Your task to perform on an android device: remove spam from my inbox in the gmail app Image 0: 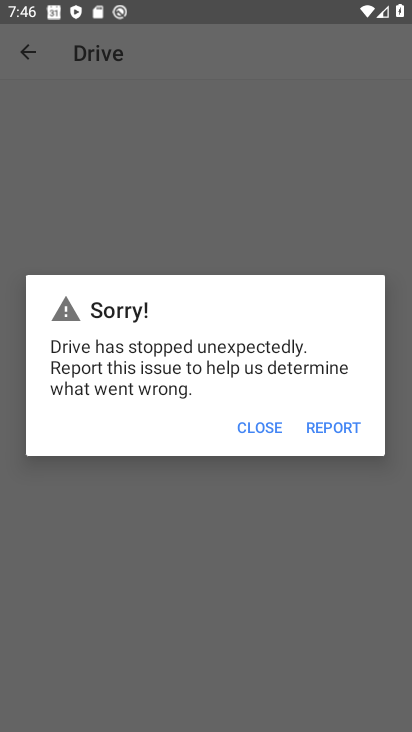
Step 0: press home button
Your task to perform on an android device: remove spam from my inbox in the gmail app Image 1: 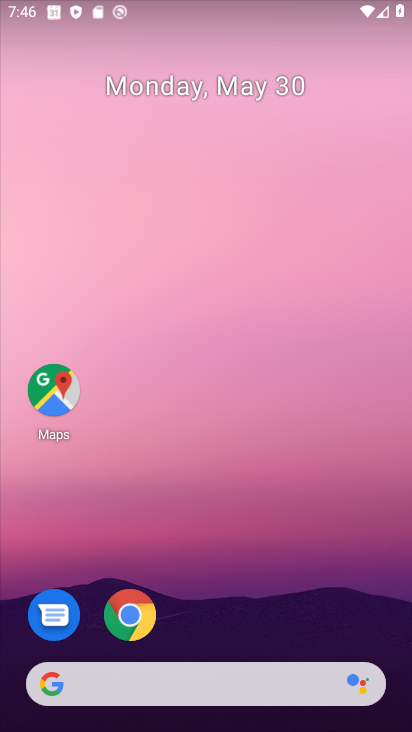
Step 1: drag from (135, 725) to (190, 71)
Your task to perform on an android device: remove spam from my inbox in the gmail app Image 2: 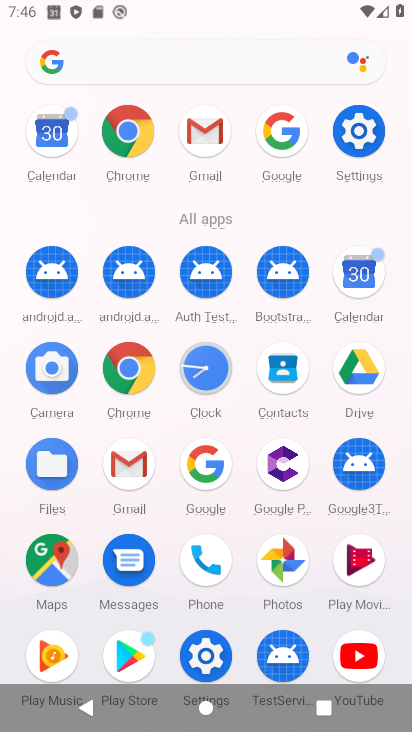
Step 2: click (208, 141)
Your task to perform on an android device: remove spam from my inbox in the gmail app Image 3: 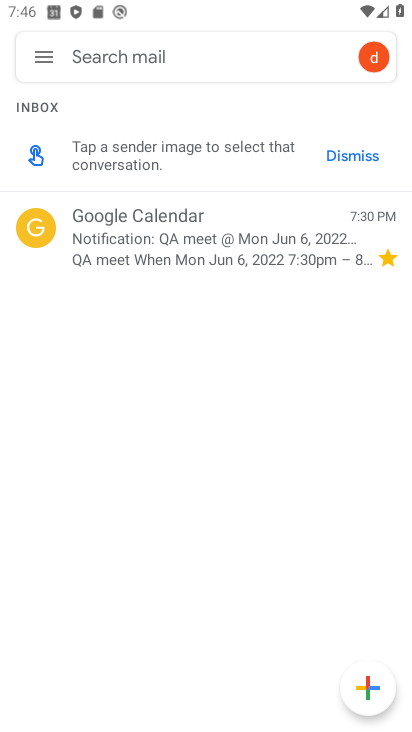
Step 3: click (42, 62)
Your task to perform on an android device: remove spam from my inbox in the gmail app Image 4: 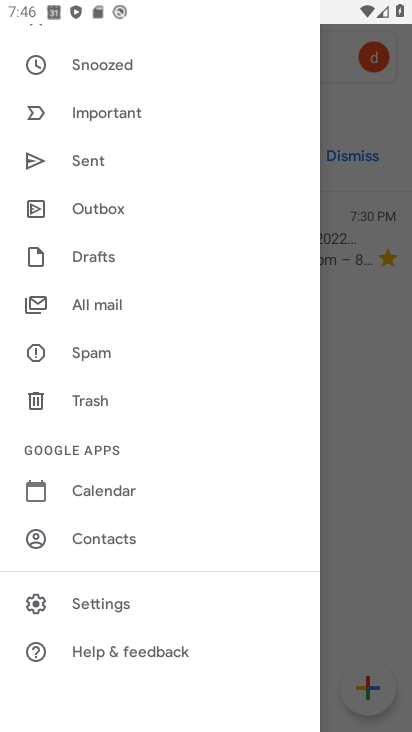
Step 4: click (114, 365)
Your task to perform on an android device: remove spam from my inbox in the gmail app Image 5: 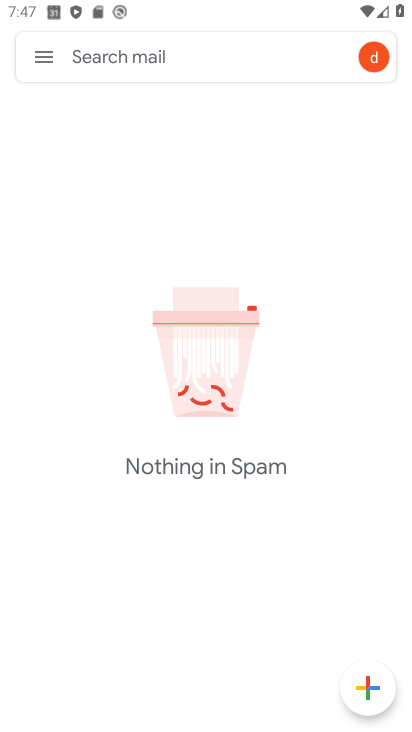
Step 5: task complete